Your task to perform on an android device: What's on my calendar today? Image 0: 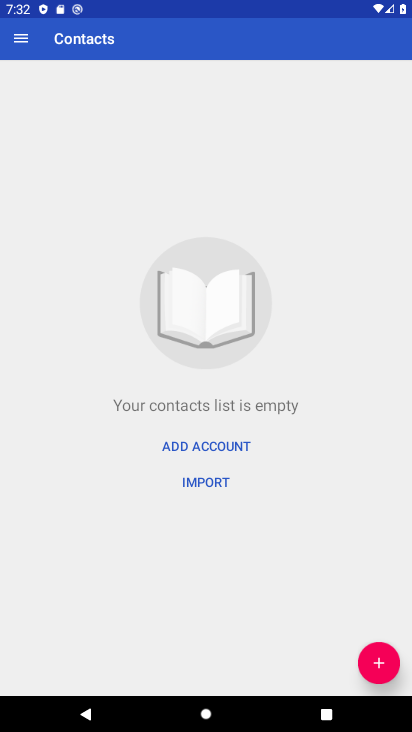
Step 0: drag from (158, 610) to (256, 383)
Your task to perform on an android device: What's on my calendar today? Image 1: 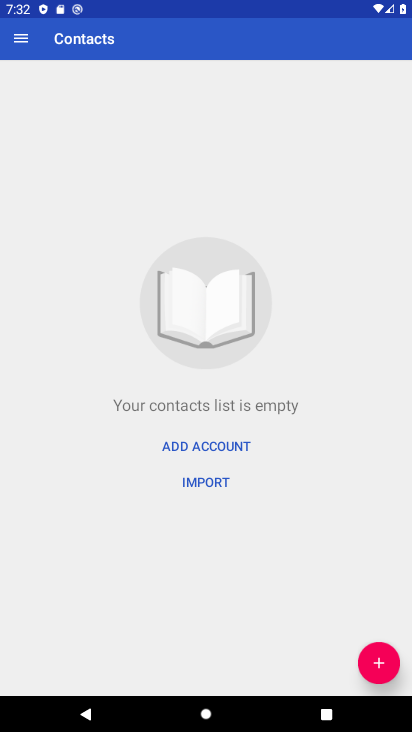
Step 1: drag from (136, 547) to (236, 376)
Your task to perform on an android device: What's on my calendar today? Image 2: 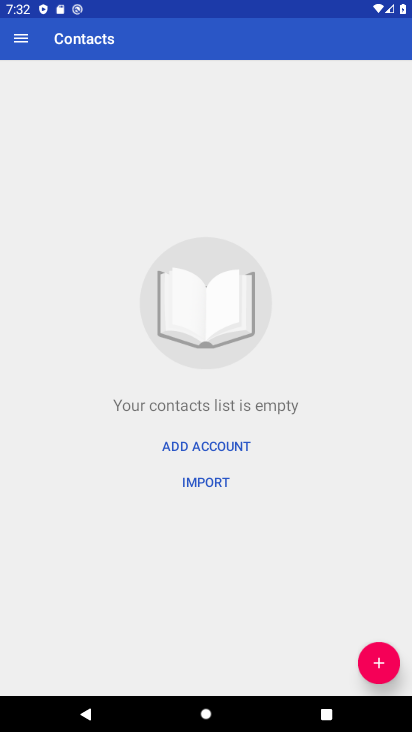
Step 2: press home button
Your task to perform on an android device: What's on my calendar today? Image 3: 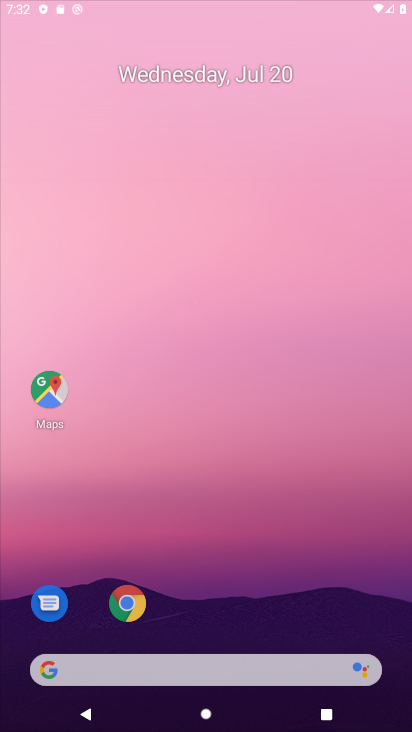
Step 3: click (242, 221)
Your task to perform on an android device: What's on my calendar today? Image 4: 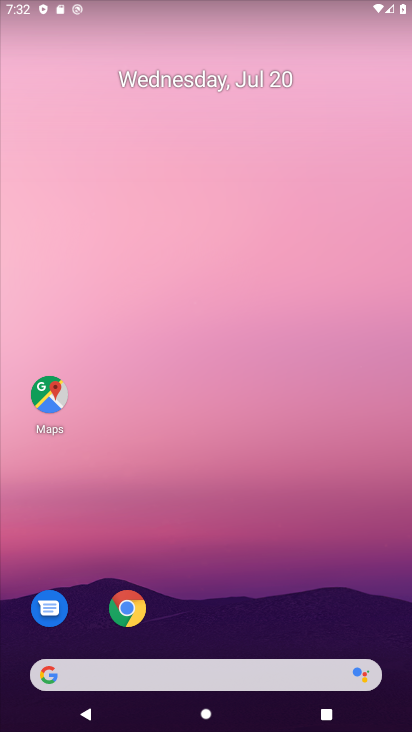
Step 4: drag from (191, 589) to (249, 184)
Your task to perform on an android device: What's on my calendar today? Image 5: 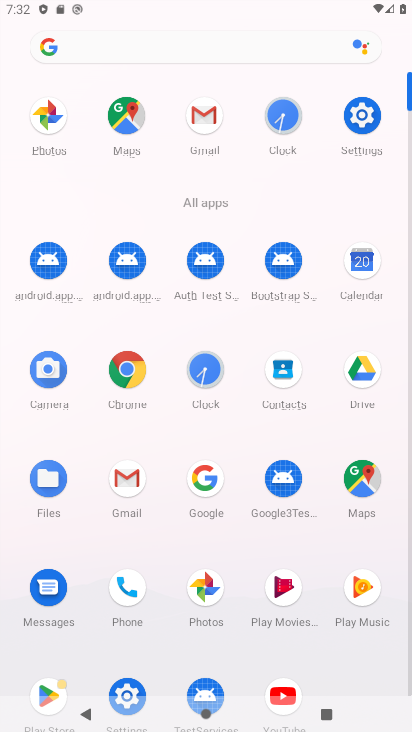
Step 5: click (359, 251)
Your task to perform on an android device: What's on my calendar today? Image 6: 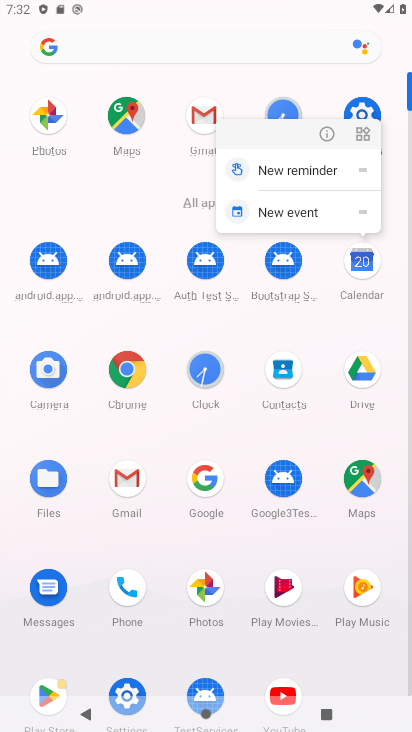
Step 6: click (321, 142)
Your task to perform on an android device: What's on my calendar today? Image 7: 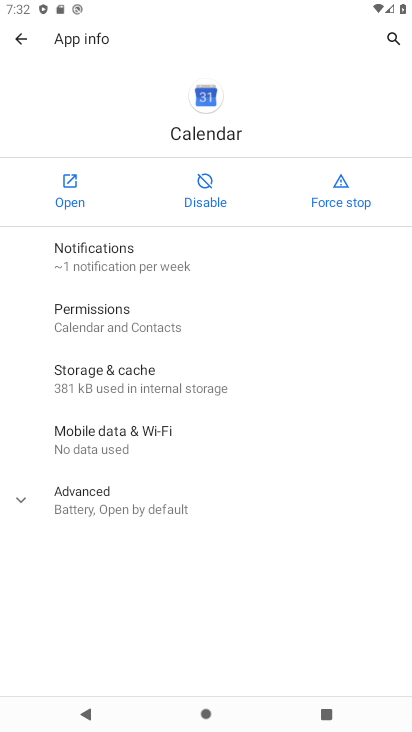
Step 7: click (57, 188)
Your task to perform on an android device: What's on my calendar today? Image 8: 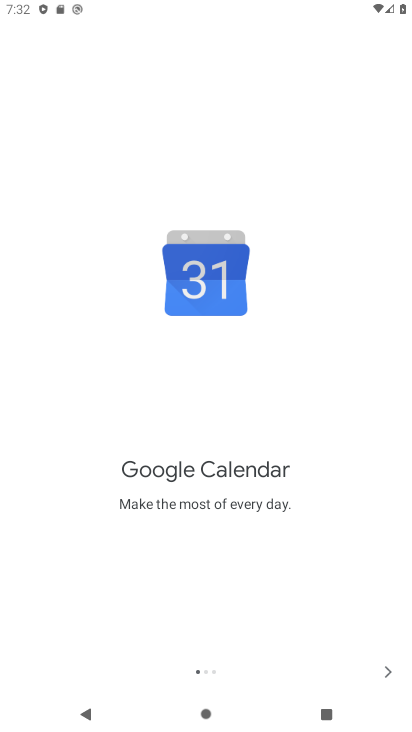
Step 8: click (374, 670)
Your task to perform on an android device: What's on my calendar today? Image 9: 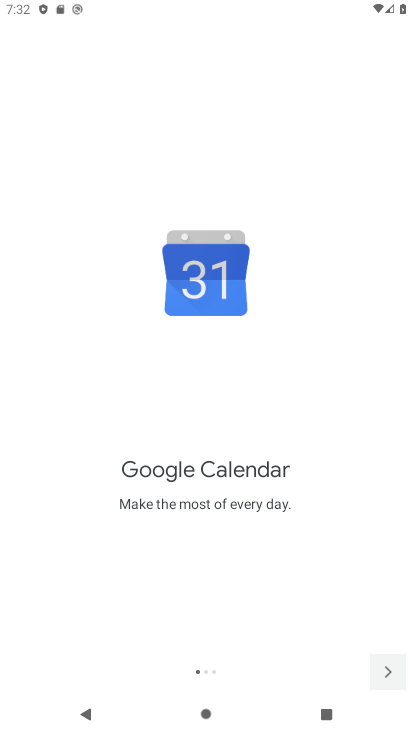
Step 9: click (376, 670)
Your task to perform on an android device: What's on my calendar today? Image 10: 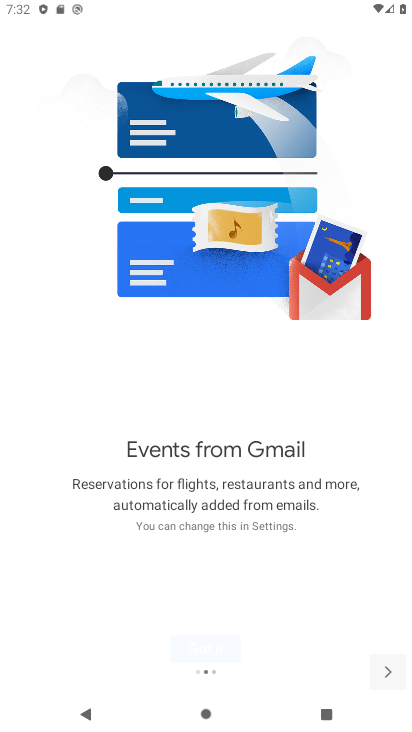
Step 10: click (376, 670)
Your task to perform on an android device: What's on my calendar today? Image 11: 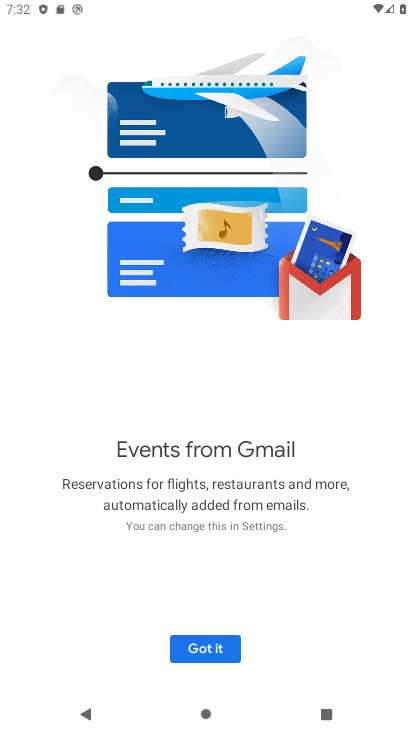
Step 11: click (376, 670)
Your task to perform on an android device: What's on my calendar today? Image 12: 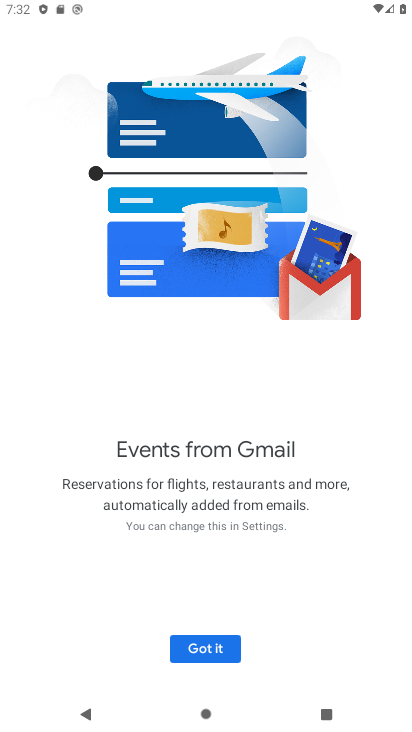
Step 12: click (376, 670)
Your task to perform on an android device: What's on my calendar today? Image 13: 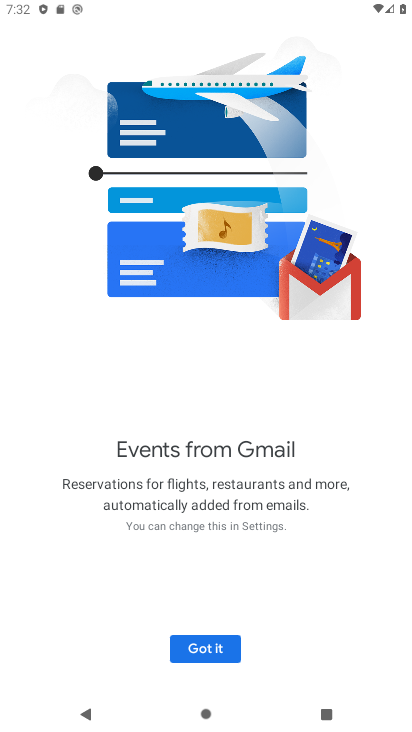
Step 13: click (186, 650)
Your task to perform on an android device: What's on my calendar today? Image 14: 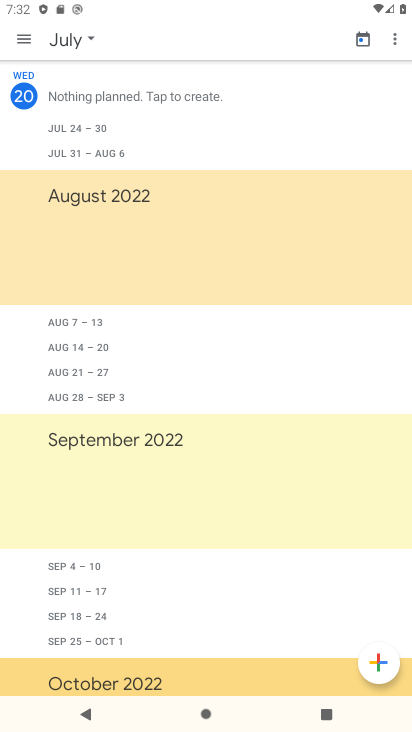
Step 14: click (355, 34)
Your task to perform on an android device: What's on my calendar today? Image 15: 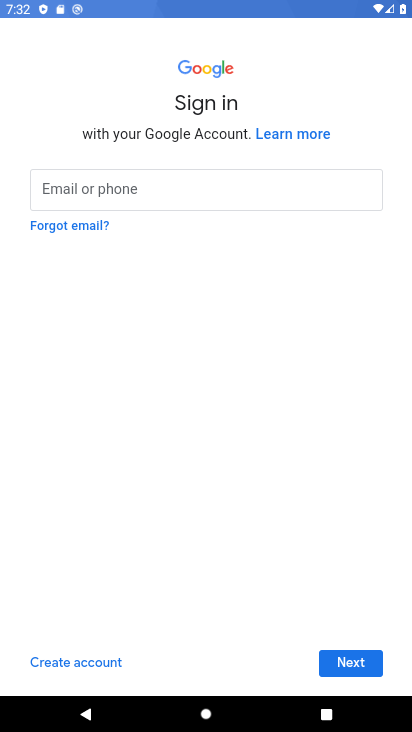
Step 15: task complete